Your task to perform on an android device: Is it going to rain this weekend? Image 0: 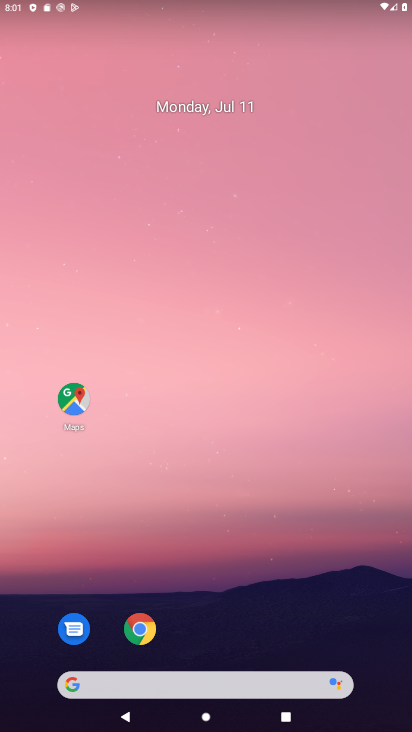
Step 0: click (216, 685)
Your task to perform on an android device: Is it going to rain this weekend? Image 1: 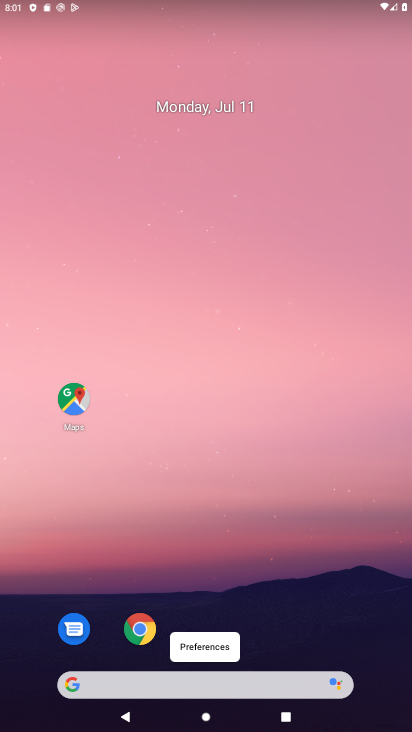
Step 1: click (203, 685)
Your task to perform on an android device: Is it going to rain this weekend? Image 2: 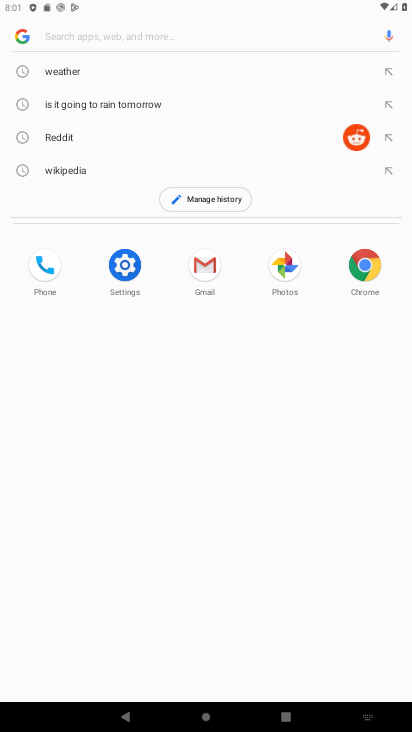
Step 2: click (47, 64)
Your task to perform on an android device: Is it going to rain this weekend? Image 3: 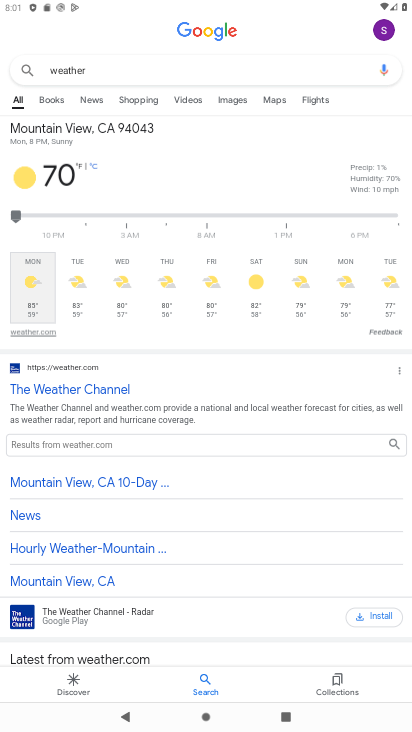
Step 3: task complete